Your task to perform on an android device: turn off notifications settings in the gmail app Image 0: 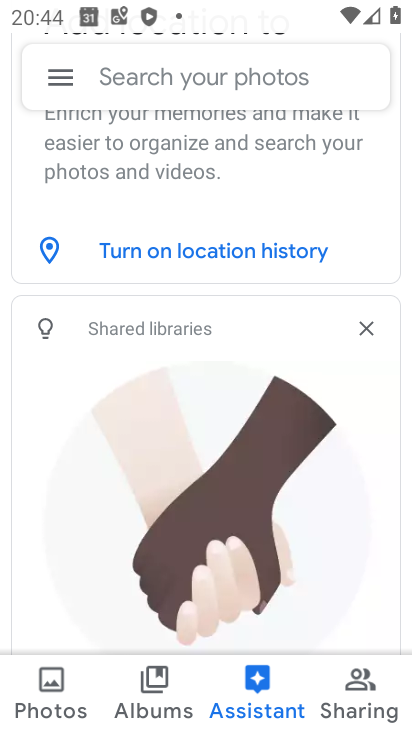
Step 0: press home button
Your task to perform on an android device: turn off notifications settings in the gmail app Image 1: 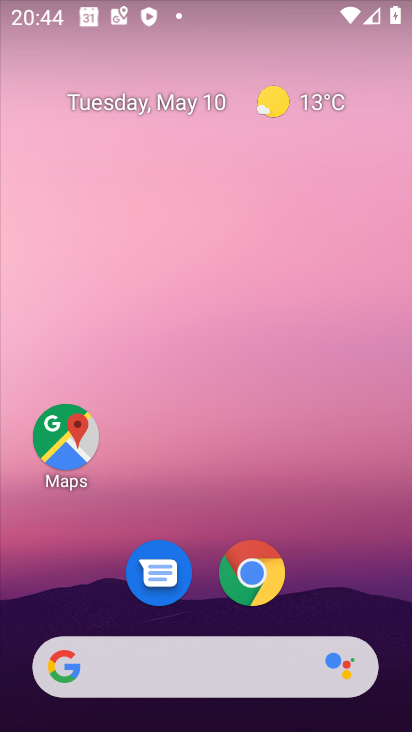
Step 1: drag from (344, 613) to (368, 36)
Your task to perform on an android device: turn off notifications settings in the gmail app Image 2: 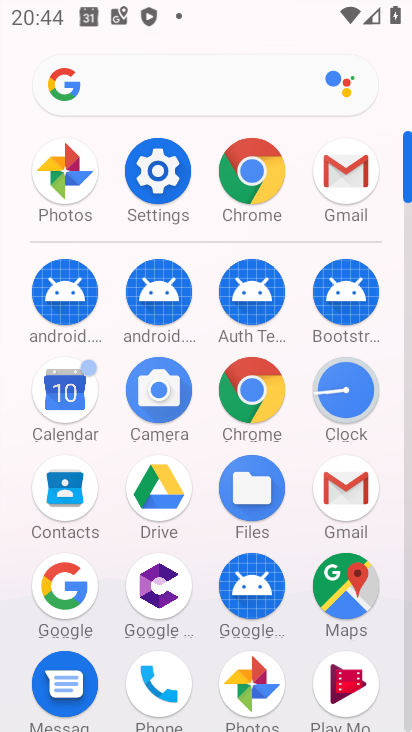
Step 2: click (316, 180)
Your task to perform on an android device: turn off notifications settings in the gmail app Image 3: 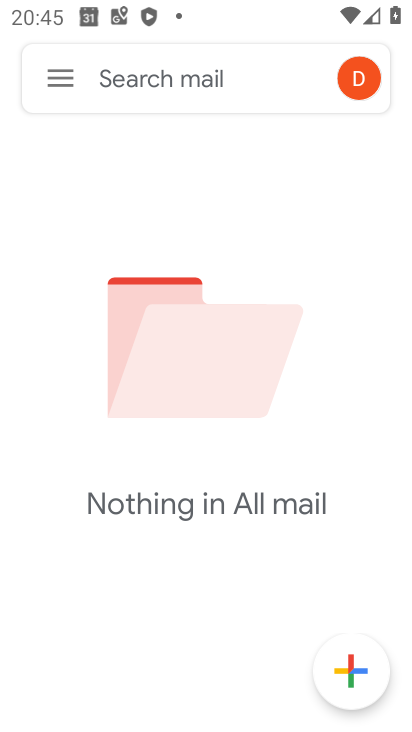
Step 3: click (62, 82)
Your task to perform on an android device: turn off notifications settings in the gmail app Image 4: 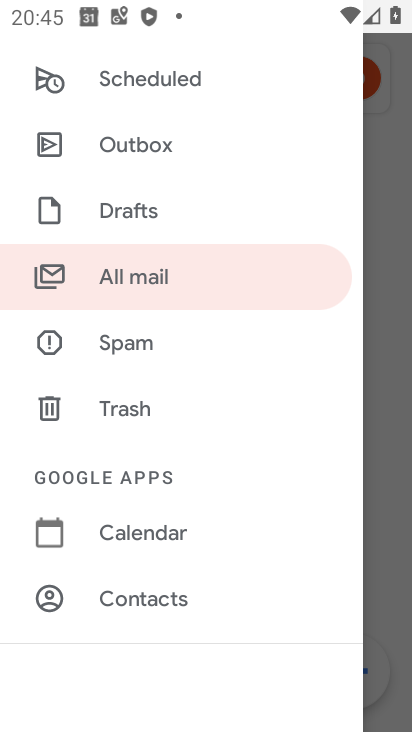
Step 4: drag from (216, 577) to (224, 238)
Your task to perform on an android device: turn off notifications settings in the gmail app Image 5: 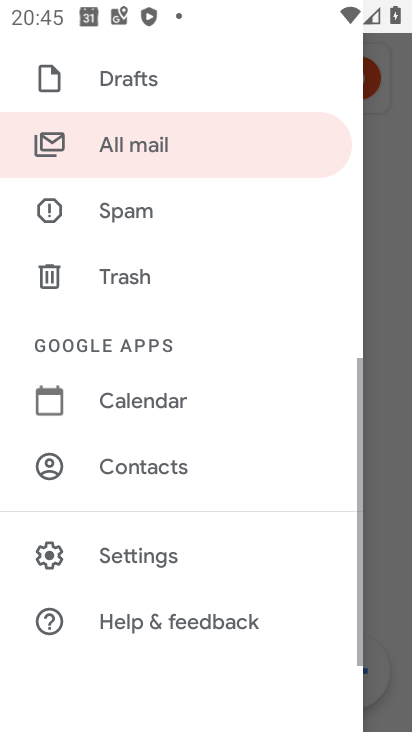
Step 5: click (138, 562)
Your task to perform on an android device: turn off notifications settings in the gmail app Image 6: 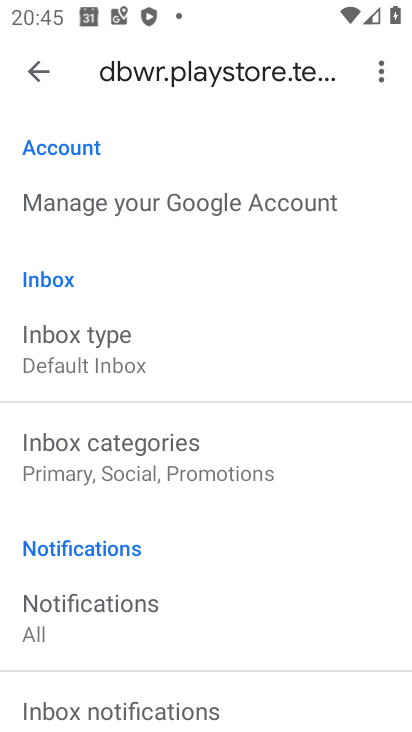
Step 6: click (42, 74)
Your task to perform on an android device: turn off notifications settings in the gmail app Image 7: 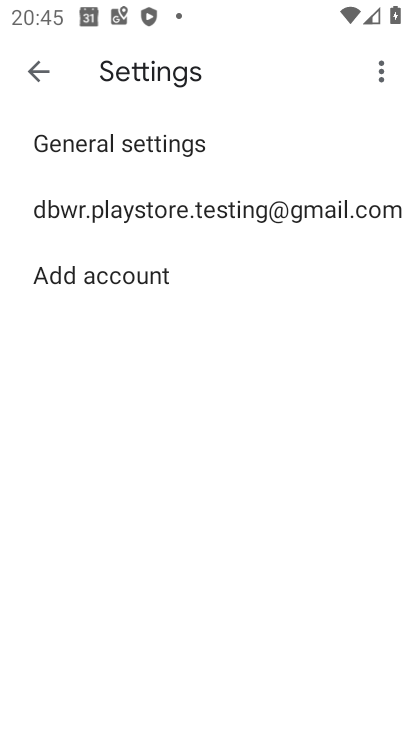
Step 7: click (95, 144)
Your task to perform on an android device: turn off notifications settings in the gmail app Image 8: 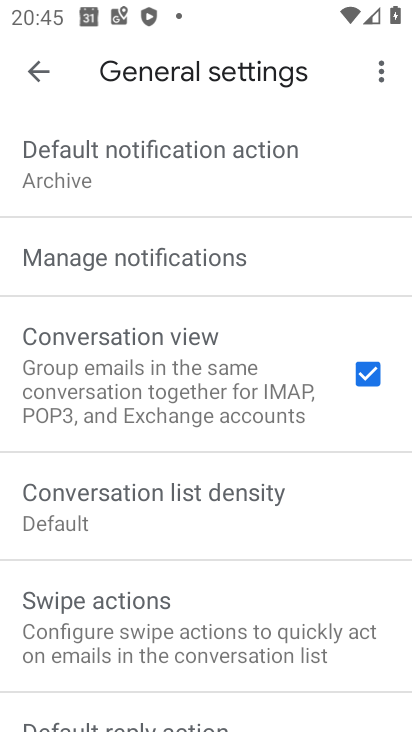
Step 8: click (142, 261)
Your task to perform on an android device: turn off notifications settings in the gmail app Image 9: 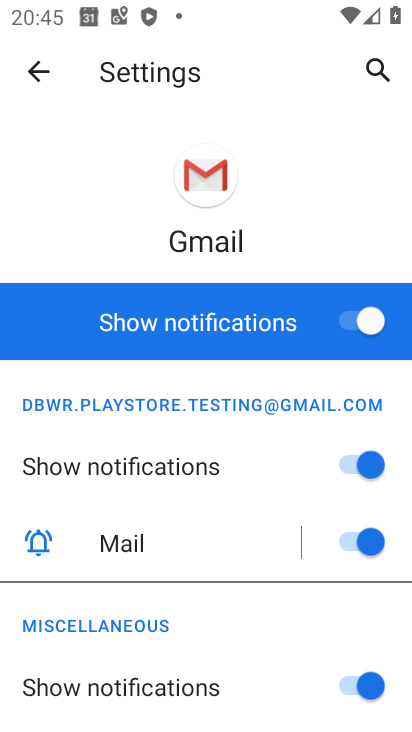
Step 9: click (367, 321)
Your task to perform on an android device: turn off notifications settings in the gmail app Image 10: 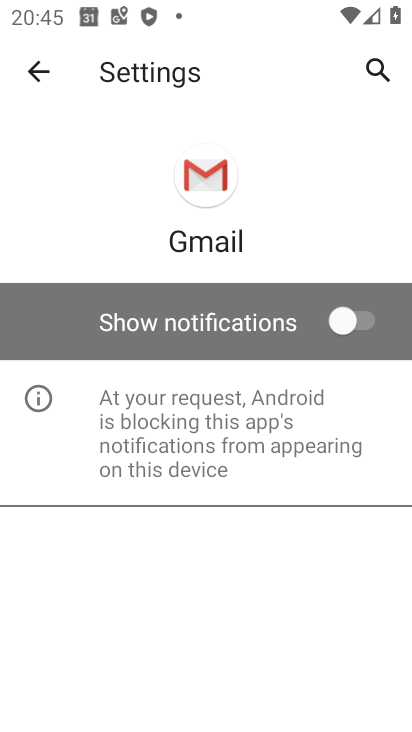
Step 10: task complete